Your task to perform on an android device: Check the news Image 0: 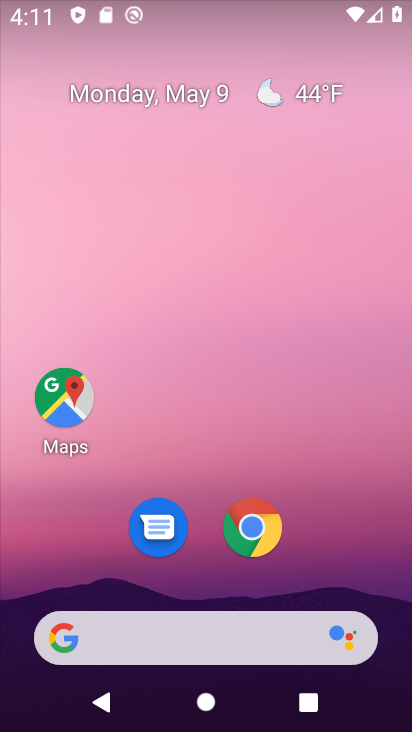
Step 0: click (174, 635)
Your task to perform on an android device: Check the news Image 1: 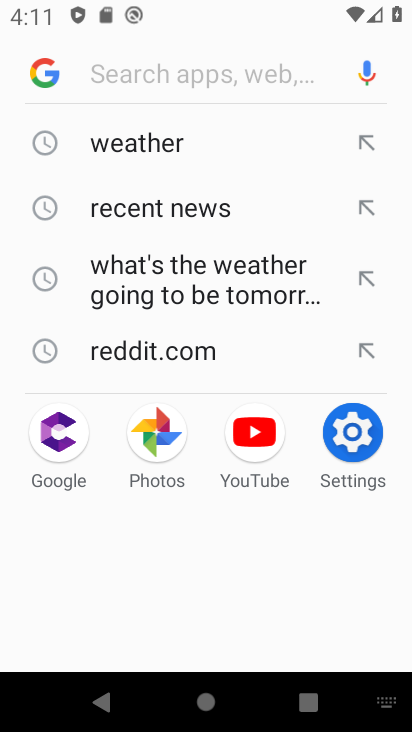
Step 1: click (56, 77)
Your task to perform on an android device: Check the news Image 2: 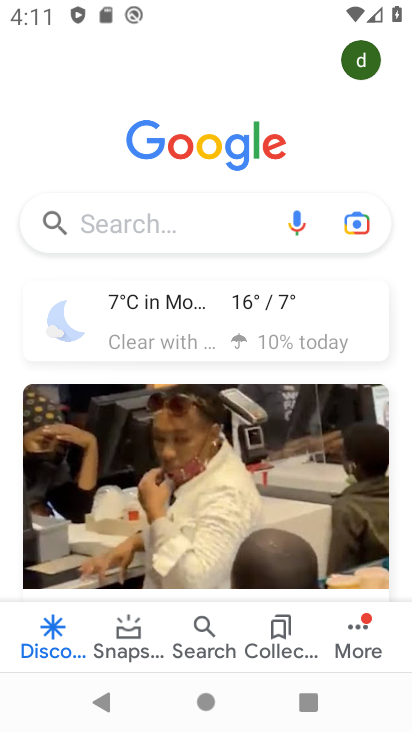
Step 2: task complete